Your task to perform on an android device: turn smart compose on in the gmail app Image 0: 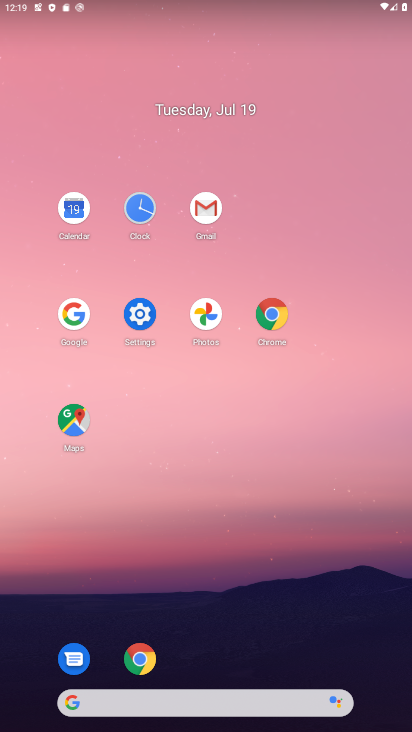
Step 0: click (198, 214)
Your task to perform on an android device: turn smart compose on in the gmail app Image 1: 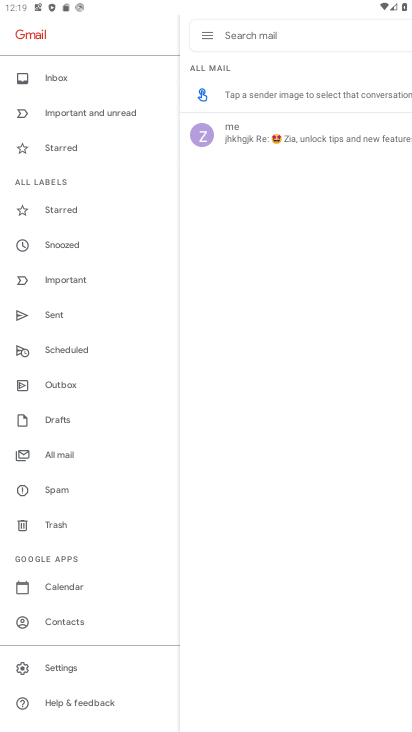
Step 1: click (89, 670)
Your task to perform on an android device: turn smart compose on in the gmail app Image 2: 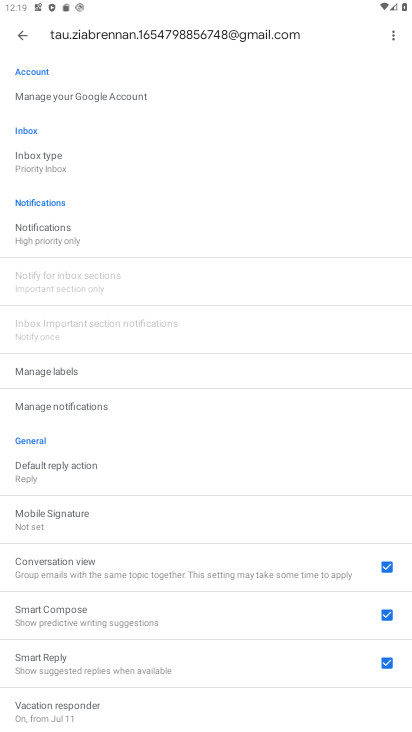
Step 2: task complete